Your task to perform on an android device: find photos in the google photos app Image 0: 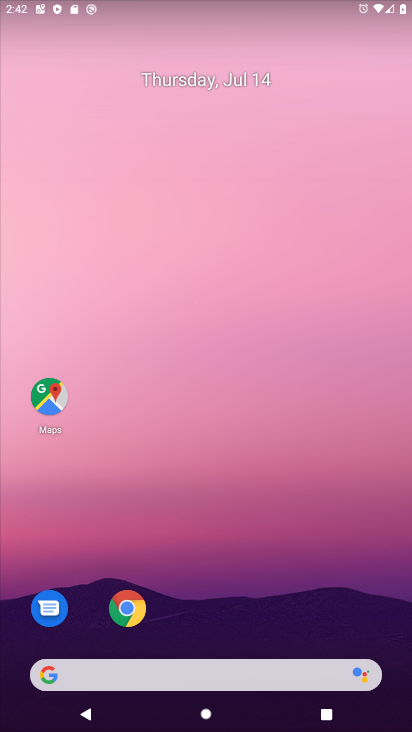
Step 0: drag from (253, 725) to (272, 237)
Your task to perform on an android device: find photos in the google photos app Image 1: 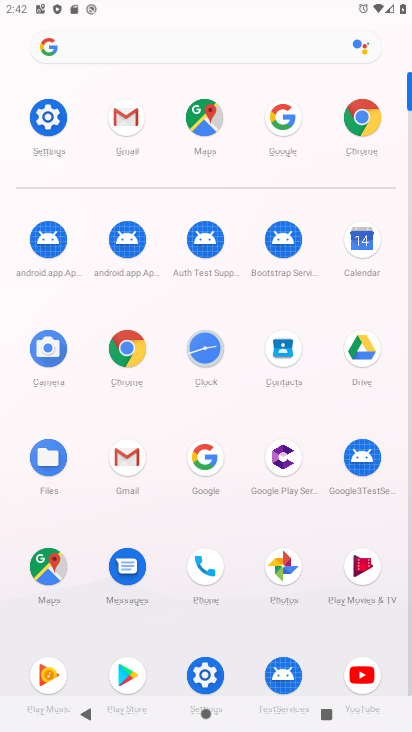
Step 1: click (282, 559)
Your task to perform on an android device: find photos in the google photos app Image 2: 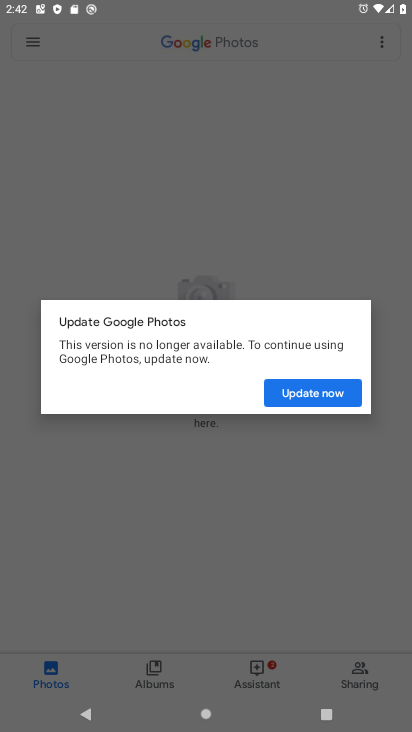
Step 2: task complete